Your task to perform on an android device: Search for pizza restaurants on Maps Image 0: 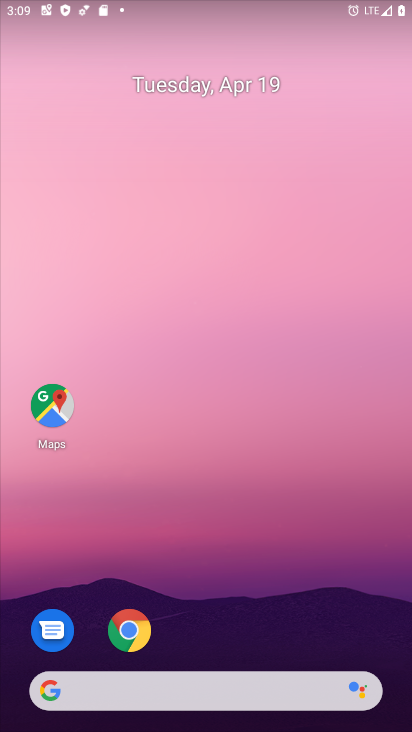
Step 0: drag from (216, 727) to (226, 2)
Your task to perform on an android device: Search for pizza restaurants on Maps Image 1: 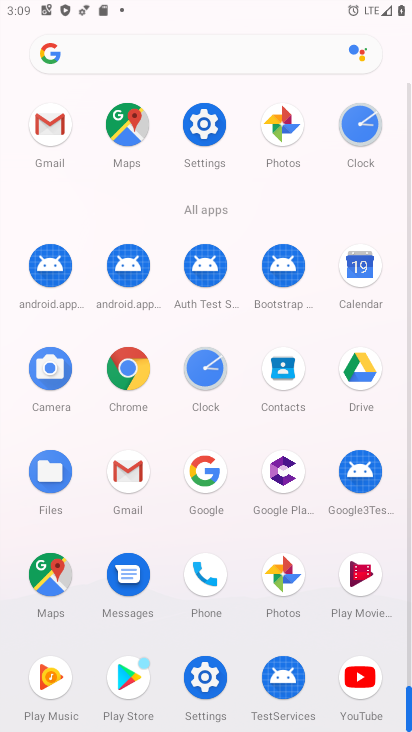
Step 1: click (43, 572)
Your task to perform on an android device: Search for pizza restaurants on Maps Image 2: 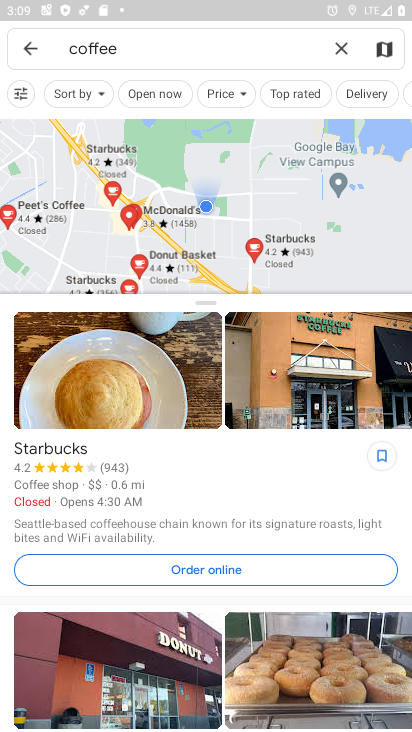
Step 2: click (342, 46)
Your task to perform on an android device: Search for pizza restaurants on Maps Image 3: 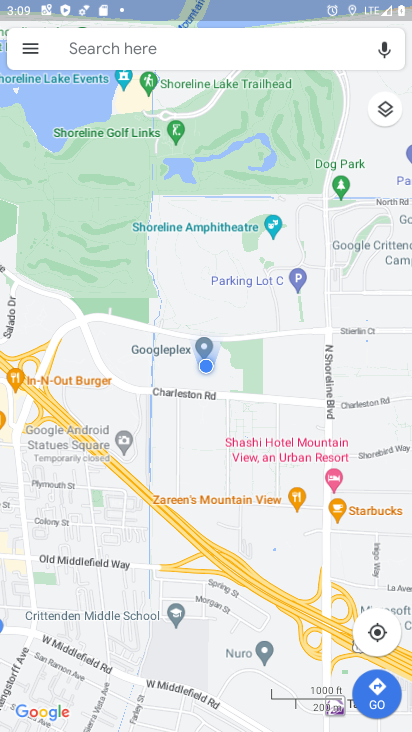
Step 3: click (134, 49)
Your task to perform on an android device: Search for pizza restaurants on Maps Image 4: 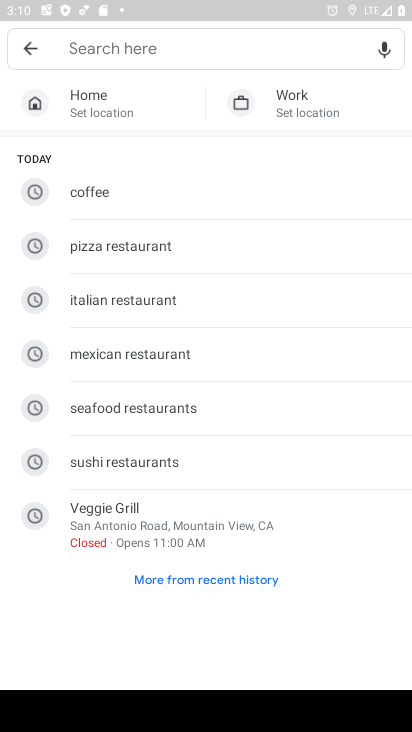
Step 4: type "Pizza restaurants"
Your task to perform on an android device: Search for pizza restaurants on Maps Image 5: 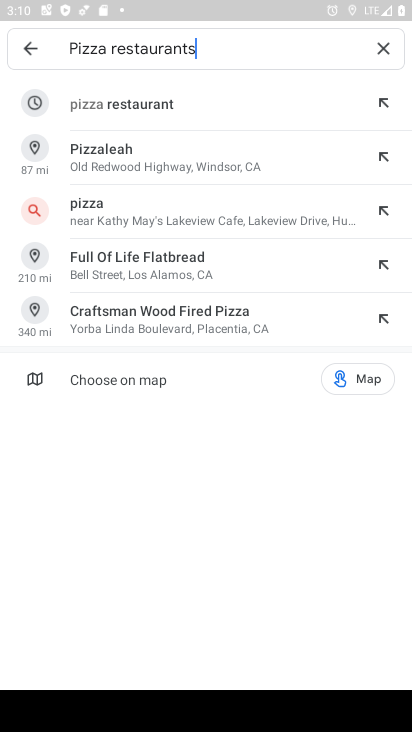
Step 5: click (154, 100)
Your task to perform on an android device: Search for pizza restaurants on Maps Image 6: 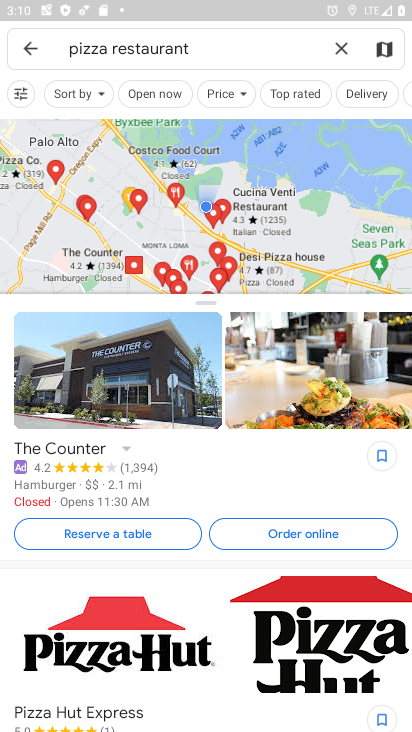
Step 6: task complete